Your task to perform on an android device: visit the assistant section in the google photos Image 0: 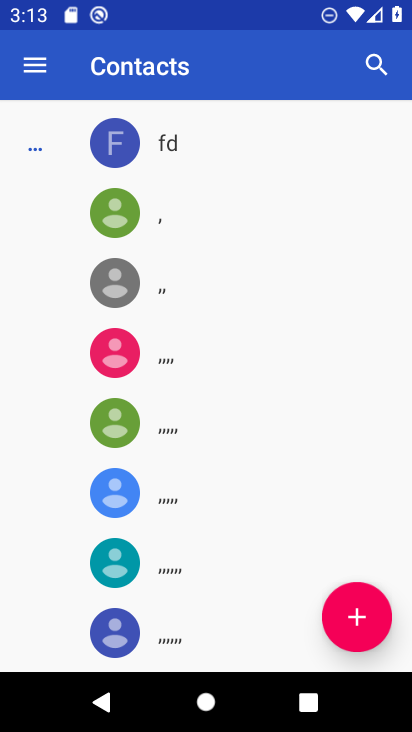
Step 0: press home button
Your task to perform on an android device: visit the assistant section in the google photos Image 1: 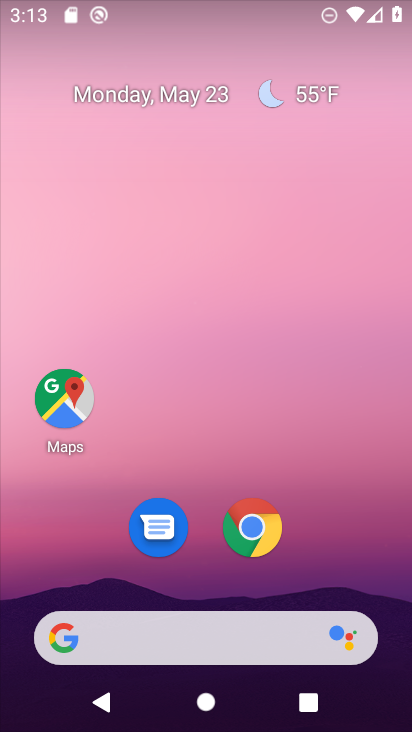
Step 1: drag from (213, 588) to (255, 100)
Your task to perform on an android device: visit the assistant section in the google photos Image 2: 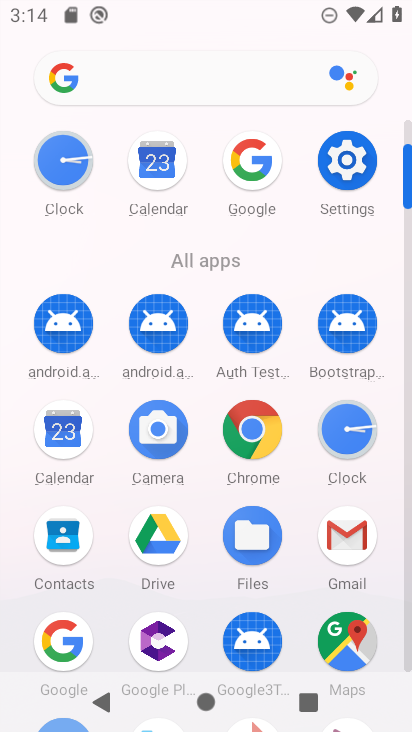
Step 2: drag from (201, 592) to (268, 226)
Your task to perform on an android device: visit the assistant section in the google photos Image 3: 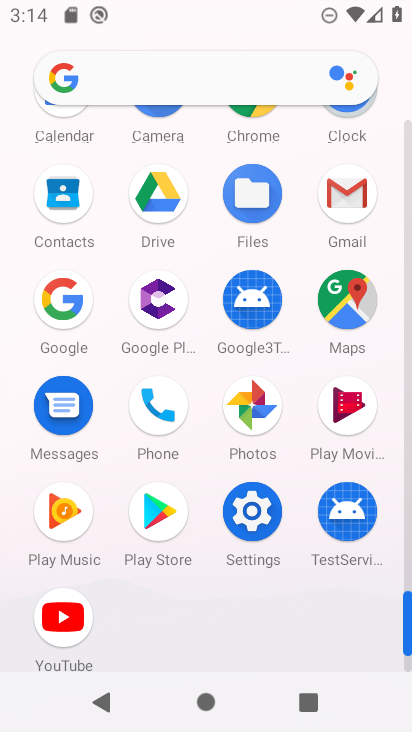
Step 3: click (250, 397)
Your task to perform on an android device: visit the assistant section in the google photos Image 4: 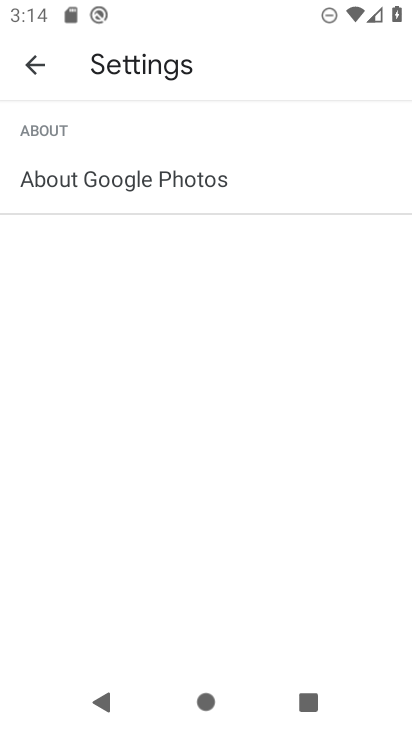
Step 4: click (43, 69)
Your task to perform on an android device: visit the assistant section in the google photos Image 5: 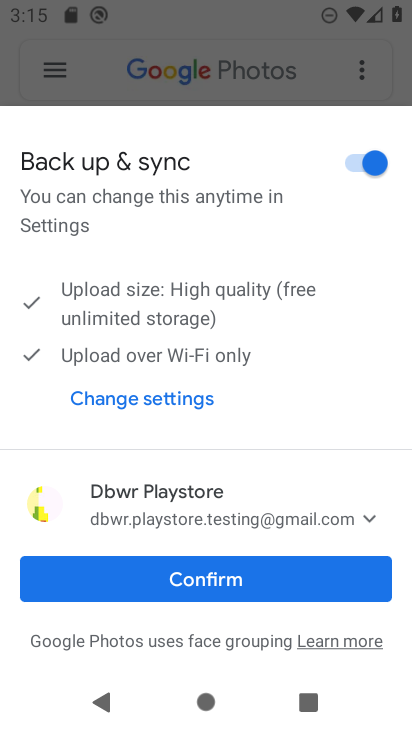
Step 5: click (211, 577)
Your task to perform on an android device: visit the assistant section in the google photos Image 6: 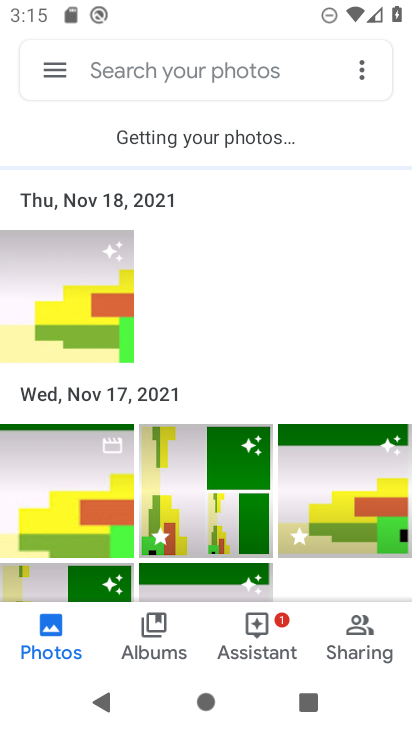
Step 6: click (260, 625)
Your task to perform on an android device: visit the assistant section in the google photos Image 7: 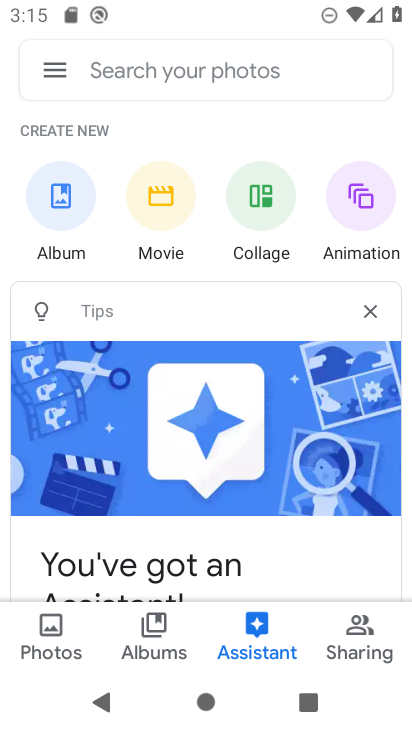
Step 7: task complete